Your task to perform on an android device: Open calendar and show me the third week of next month Image 0: 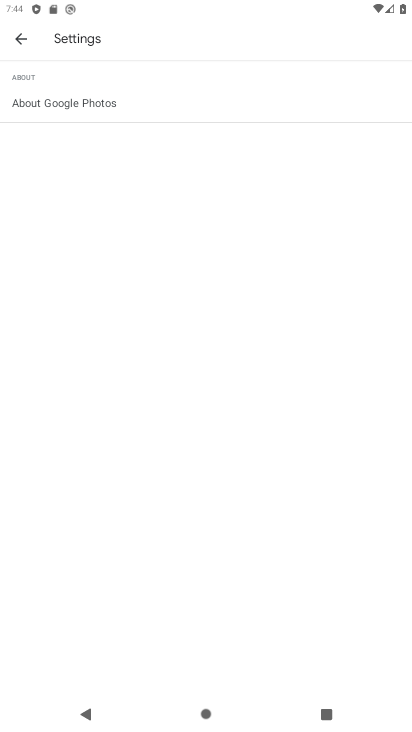
Step 0: press back button
Your task to perform on an android device: Open calendar and show me the third week of next month Image 1: 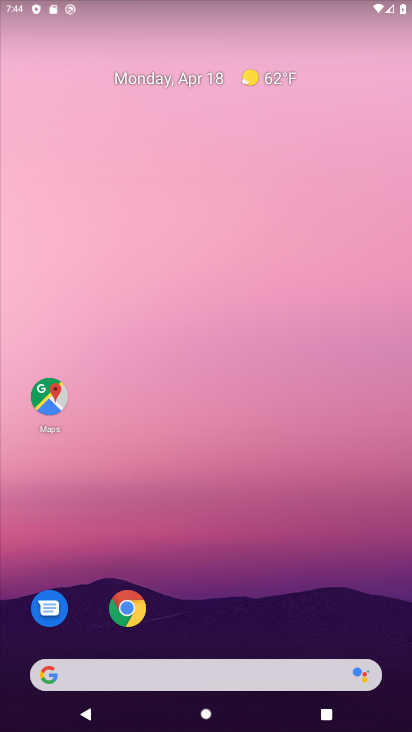
Step 1: drag from (176, 587) to (170, 196)
Your task to perform on an android device: Open calendar and show me the third week of next month Image 2: 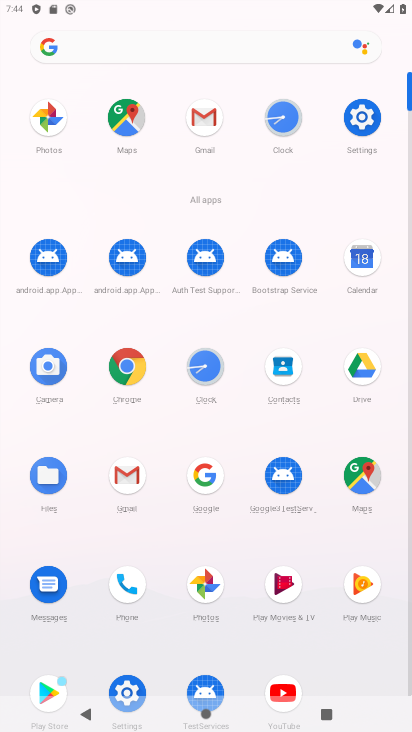
Step 2: click (355, 277)
Your task to perform on an android device: Open calendar and show me the third week of next month Image 3: 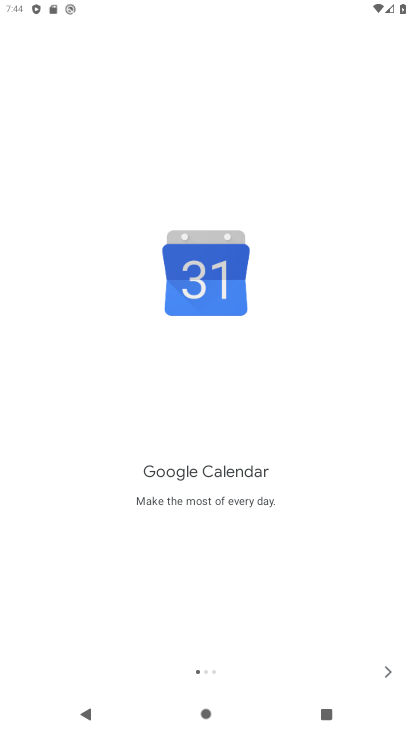
Step 3: click (390, 670)
Your task to perform on an android device: Open calendar and show me the third week of next month Image 4: 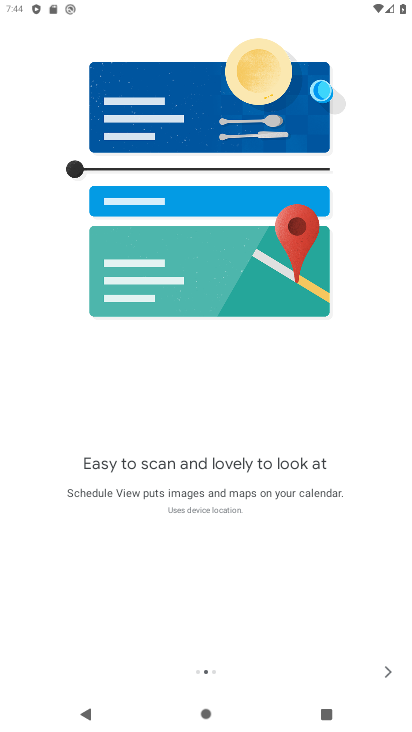
Step 4: click (390, 670)
Your task to perform on an android device: Open calendar and show me the third week of next month Image 5: 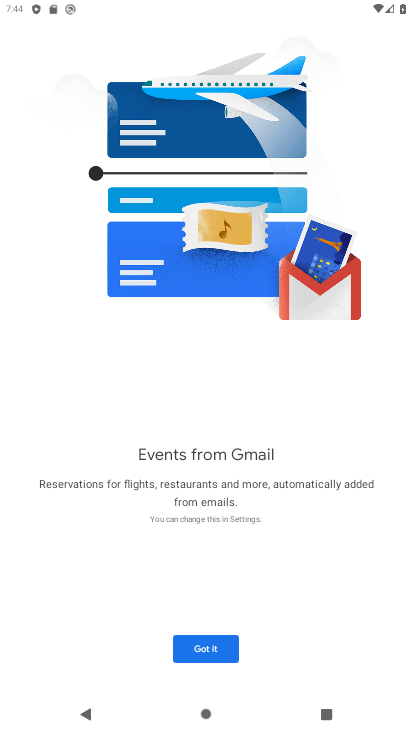
Step 5: click (230, 645)
Your task to perform on an android device: Open calendar and show me the third week of next month Image 6: 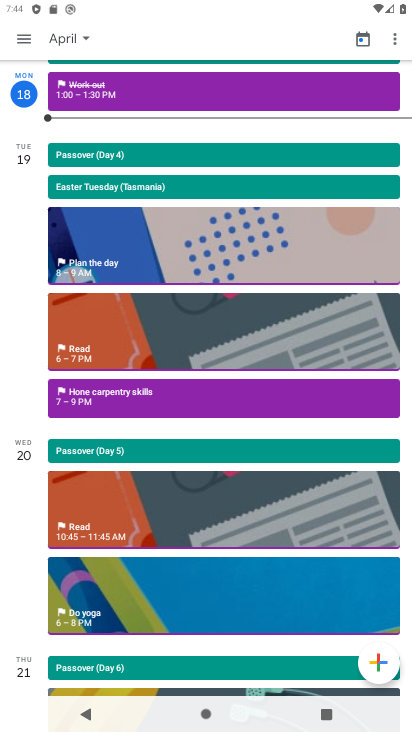
Step 6: click (23, 42)
Your task to perform on an android device: Open calendar and show me the third week of next month Image 7: 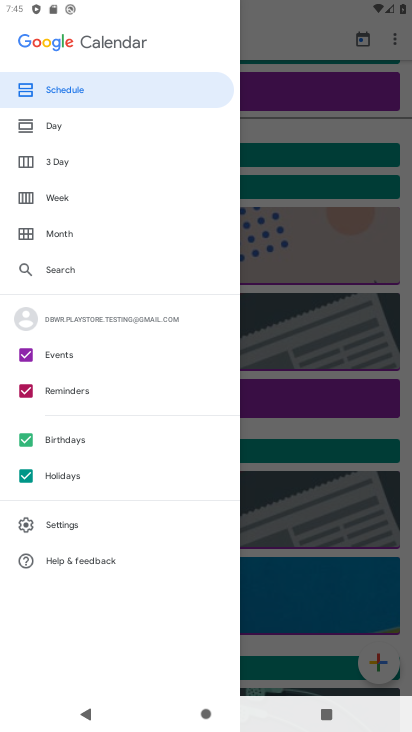
Step 7: click (64, 234)
Your task to perform on an android device: Open calendar and show me the third week of next month Image 8: 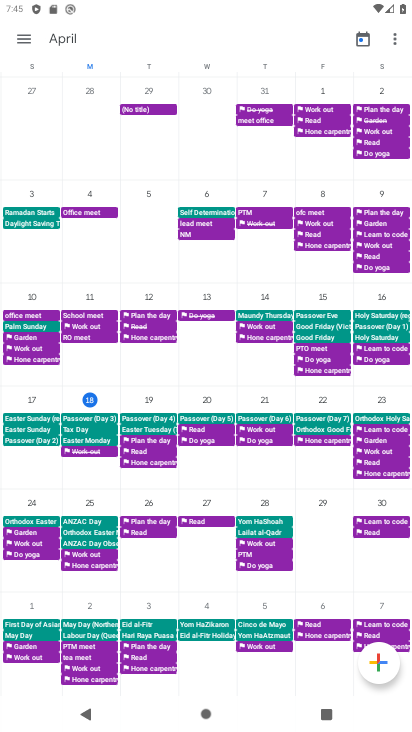
Step 8: drag from (366, 430) to (10, 384)
Your task to perform on an android device: Open calendar and show me the third week of next month Image 9: 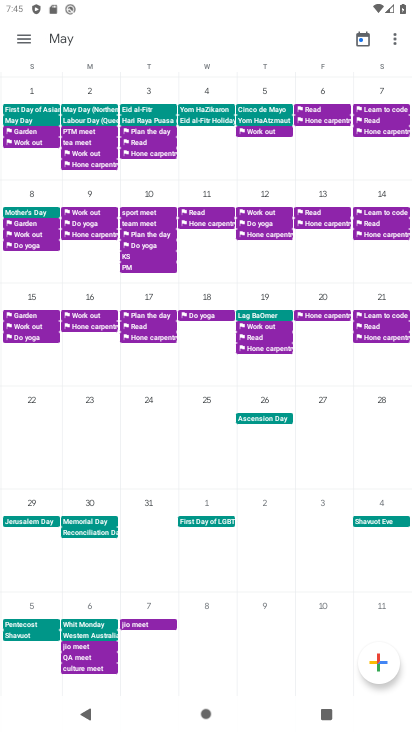
Step 9: click (310, 407)
Your task to perform on an android device: Open calendar and show me the third week of next month Image 10: 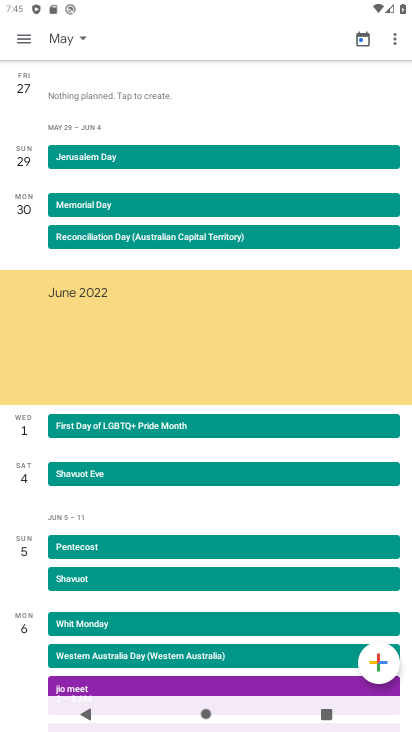
Step 10: click (16, 38)
Your task to perform on an android device: Open calendar and show me the third week of next month Image 11: 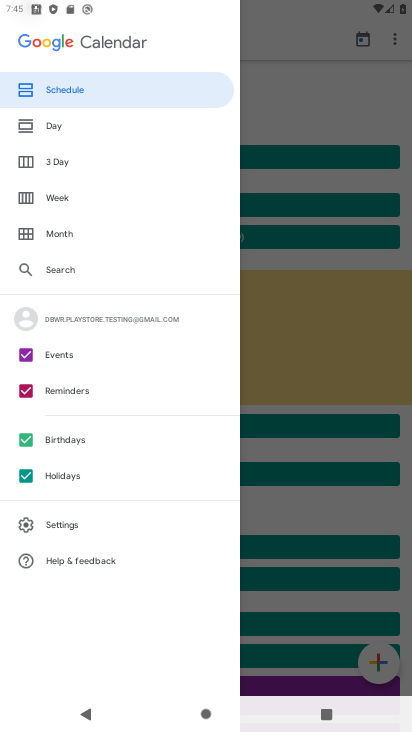
Step 11: click (55, 198)
Your task to perform on an android device: Open calendar and show me the third week of next month Image 12: 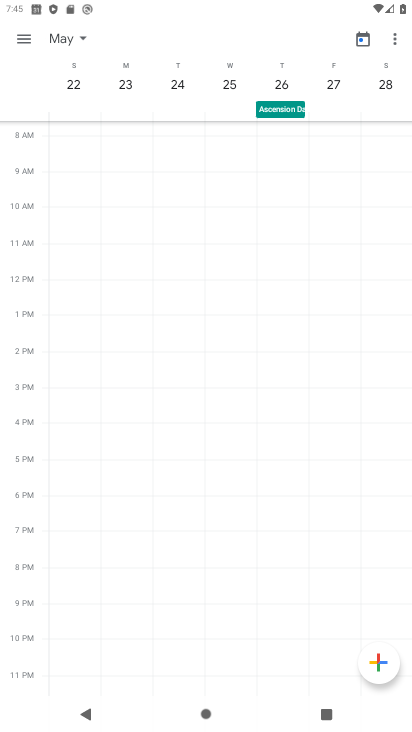
Step 12: task complete